Your task to perform on an android device: turn off notifications settings in the gmail app Image 0: 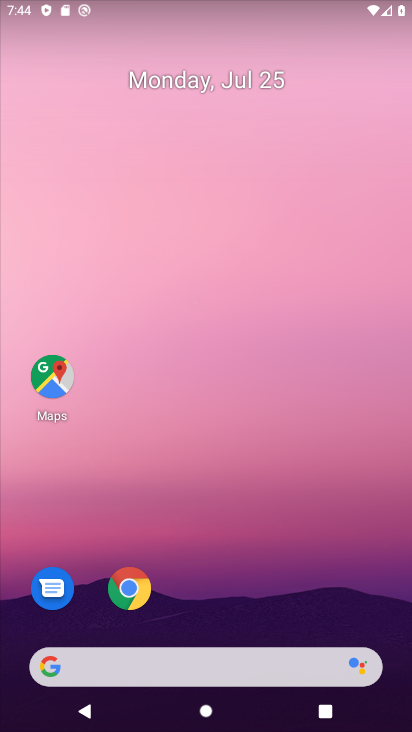
Step 0: drag from (208, 632) to (193, 280)
Your task to perform on an android device: turn off notifications settings in the gmail app Image 1: 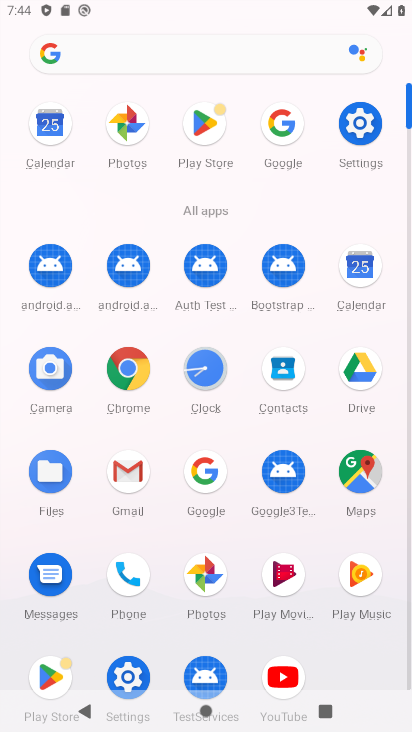
Step 1: click (135, 466)
Your task to perform on an android device: turn off notifications settings in the gmail app Image 2: 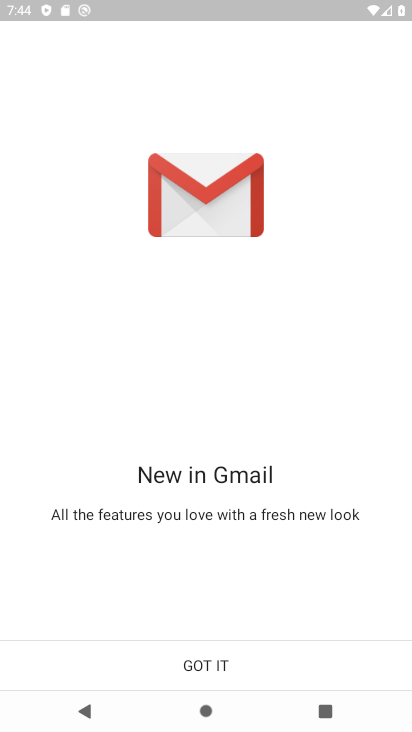
Step 2: click (206, 660)
Your task to perform on an android device: turn off notifications settings in the gmail app Image 3: 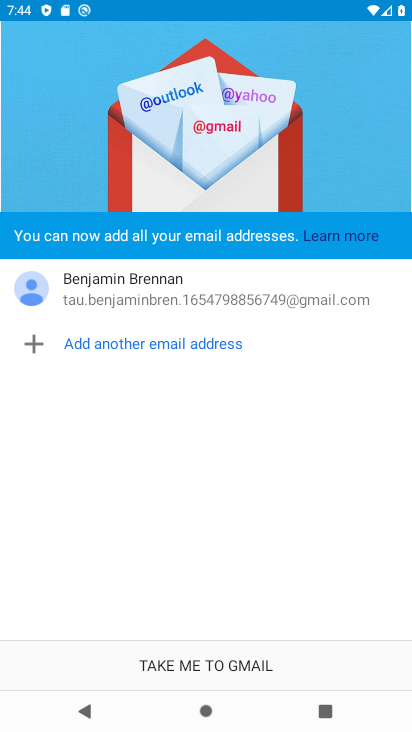
Step 3: click (206, 660)
Your task to perform on an android device: turn off notifications settings in the gmail app Image 4: 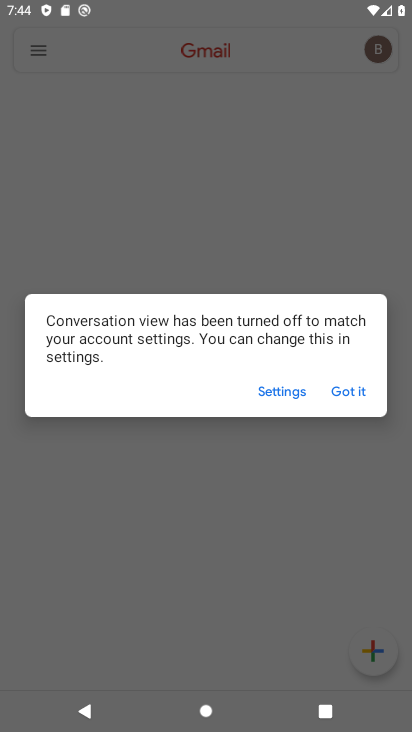
Step 4: click (357, 387)
Your task to perform on an android device: turn off notifications settings in the gmail app Image 5: 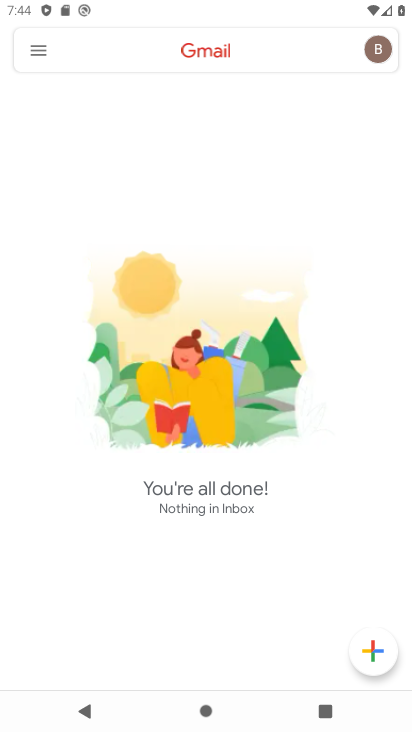
Step 5: click (40, 54)
Your task to perform on an android device: turn off notifications settings in the gmail app Image 6: 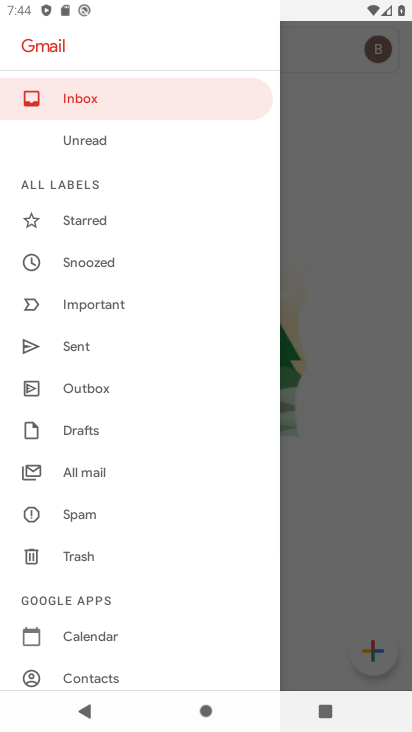
Step 6: drag from (143, 594) to (145, 269)
Your task to perform on an android device: turn off notifications settings in the gmail app Image 7: 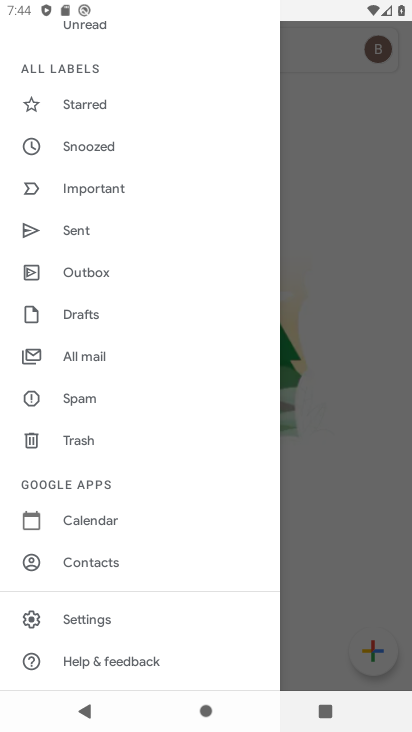
Step 7: click (91, 628)
Your task to perform on an android device: turn off notifications settings in the gmail app Image 8: 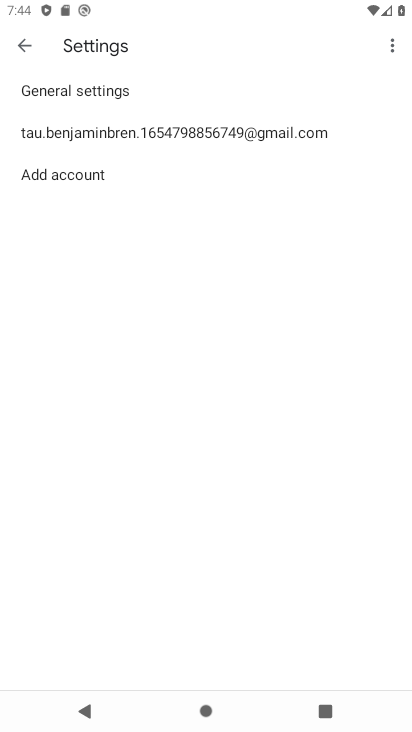
Step 8: click (57, 86)
Your task to perform on an android device: turn off notifications settings in the gmail app Image 9: 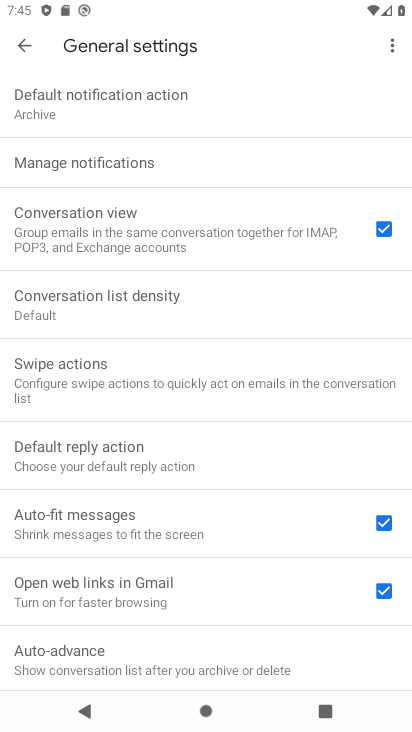
Step 9: click (38, 167)
Your task to perform on an android device: turn off notifications settings in the gmail app Image 10: 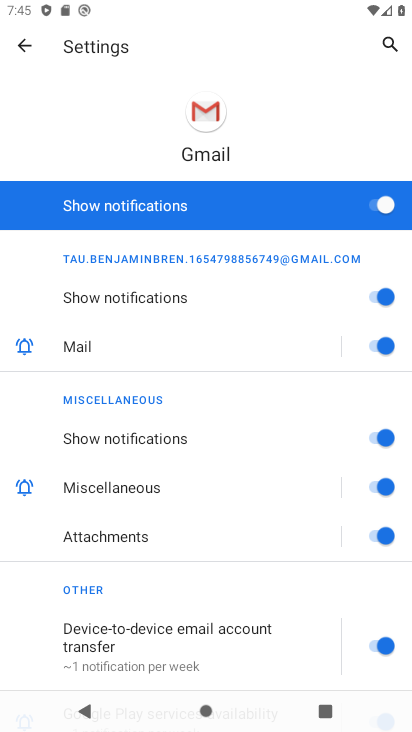
Step 10: click (386, 205)
Your task to perform on an android device: turn off notifications settings in the gmail app Image 11: 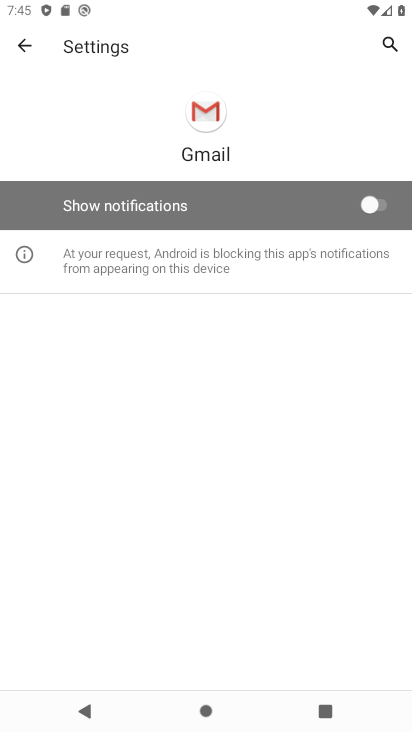
Step 11: task complete